Your task to perform on an android device: move a message to another label in the gmail app Image 0: 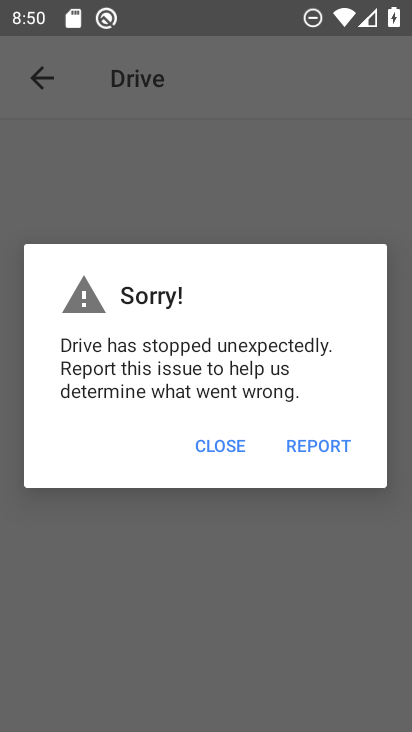
Step 0: press home button
Your task to perform on an android device: move a message to another label in the gmail app Image 1: 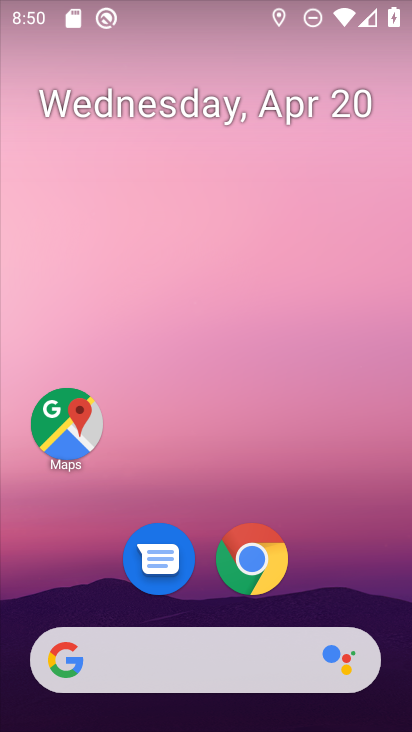
Step 1: drag from (391, 598) to (295, 198)
Your task to perform on an android device: move a message to another label in the gmail app Image 2: 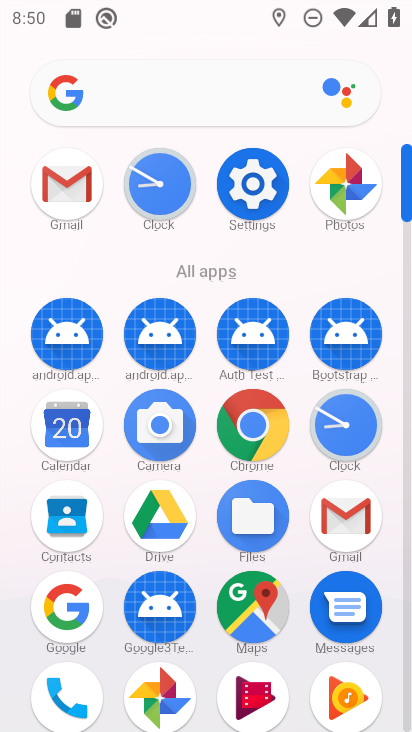
Step 2: click (408, 705)
Your task to perform on an android device: move a message to another label in the gmail app Image 3: 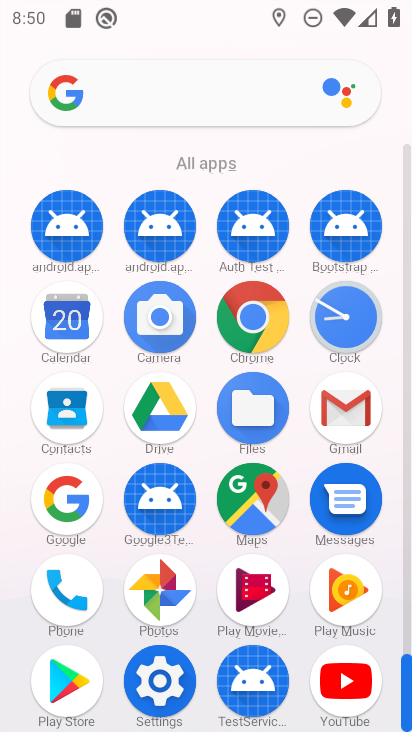
Step 3: click (342, 406)
Your task to perform on an android device: move a message to another label in the gmail app Image 4: 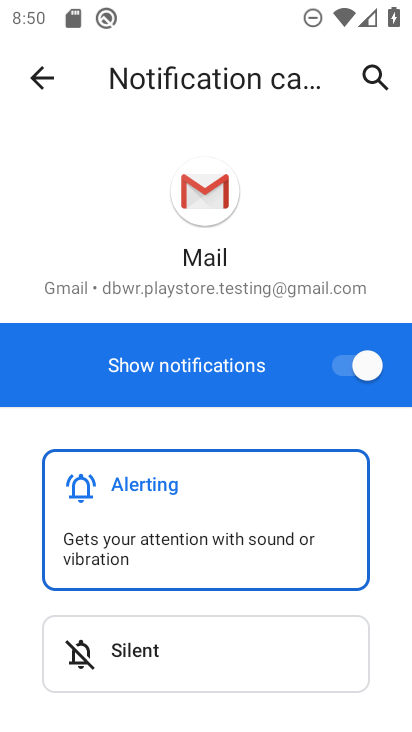
Step 4: press back button
Your task to perform on an android device: move a message to another label in the gmail app Image 5: 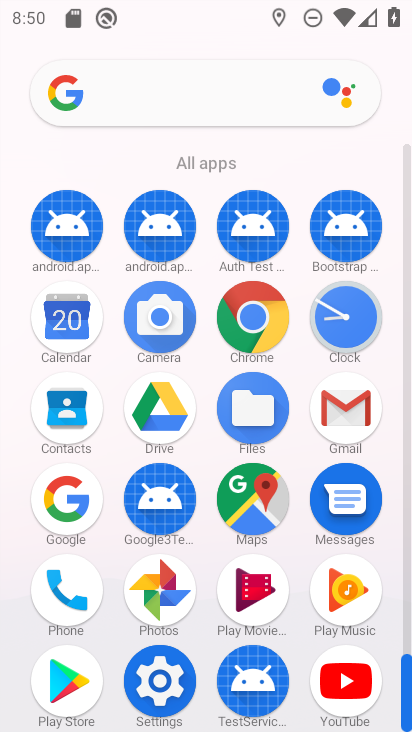
Step 5: click (346, 406)
Your task to perform on an android device: move a message to another label in the gmail app Image 6: 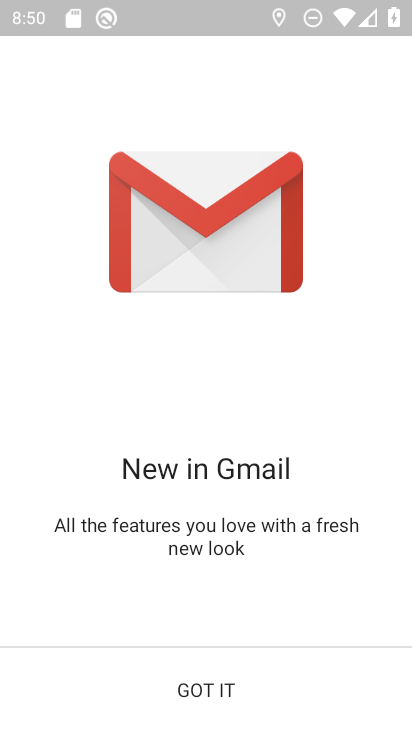
Step 6: click (192, 693)
Your task to perform on an android device: move a message to another label in the gmail app Image 7: 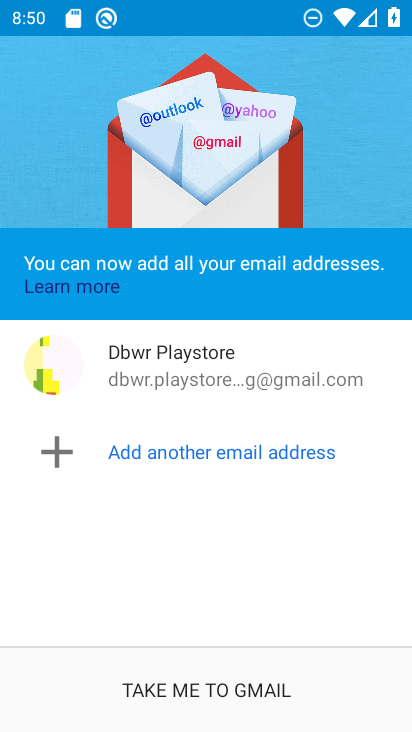
Step 7: click (192, 693)
Your task to perform on an android device: move a message to another label in the gmail app Image 8: 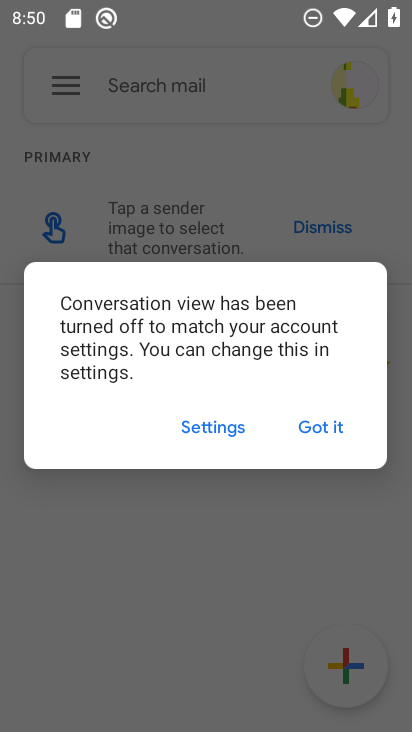
Step 8: click (317, 424)
Your task to perform on an android device: move a message to another label in the gmail app Image 9: 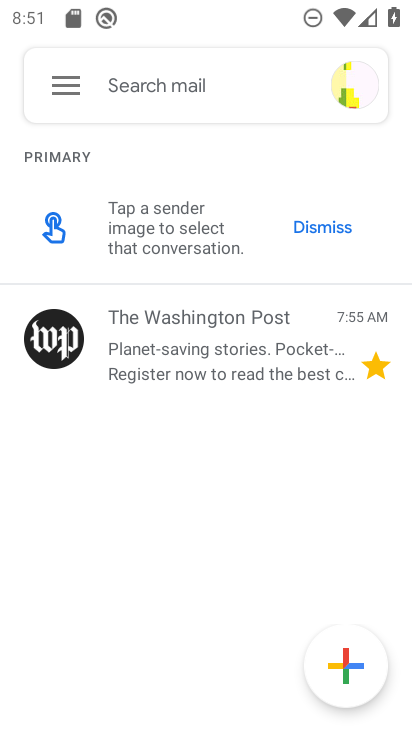
Step 9: click (156, 342)
Your task to perform on an android device: move a message to another label in the gmail app Image 10: 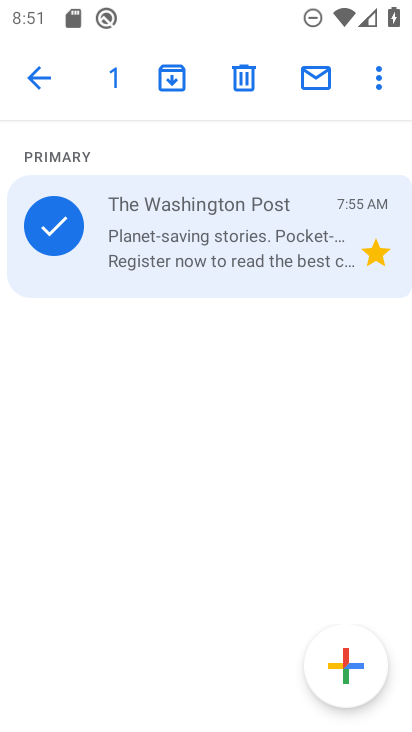
Step 10: click (377, 88)
Your task to perform on an android device: move a message to another label in the gmail app Image 11: 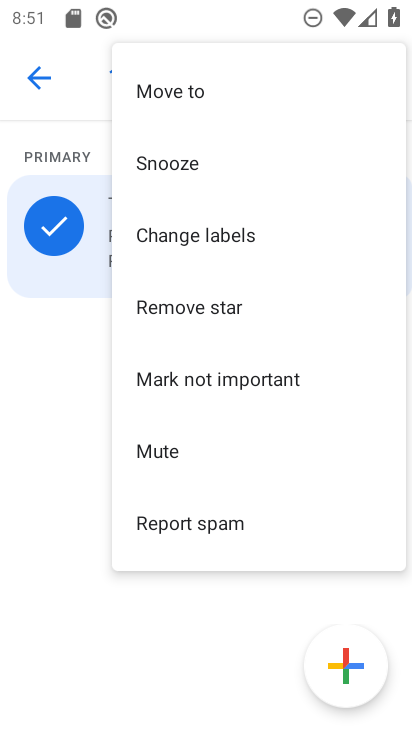
Step 11: click (184, 229)
Your task to perform on an android device: move a message to another label in the gmail app Image 12: 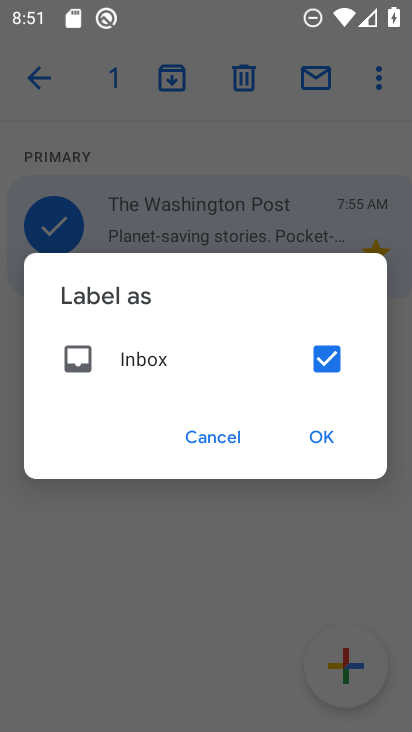
Step 12: click (325, 438)
Your task to perform on an android device: move a message to another label in the gmail app Image 13: 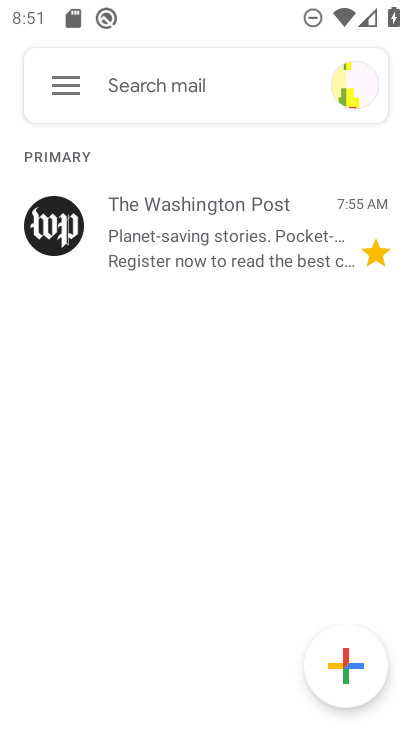
Step 13: task complete